Your task to perform on an android device: Go to calendar. Show me events next week Image 0: 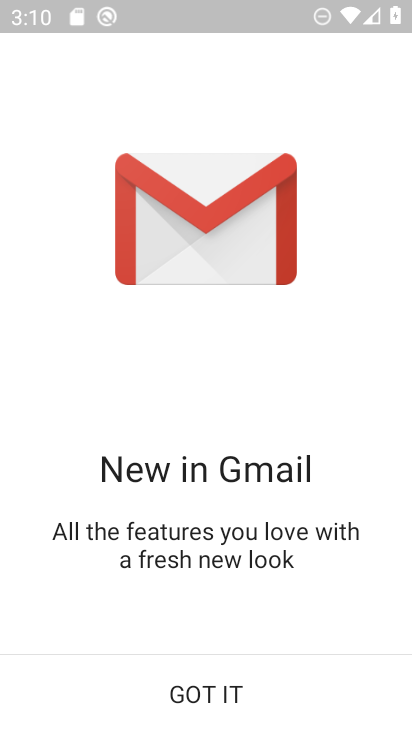
Step 0: press home button
Your task to perform on an android device: Go to calendar. Show me events next week Image 1: 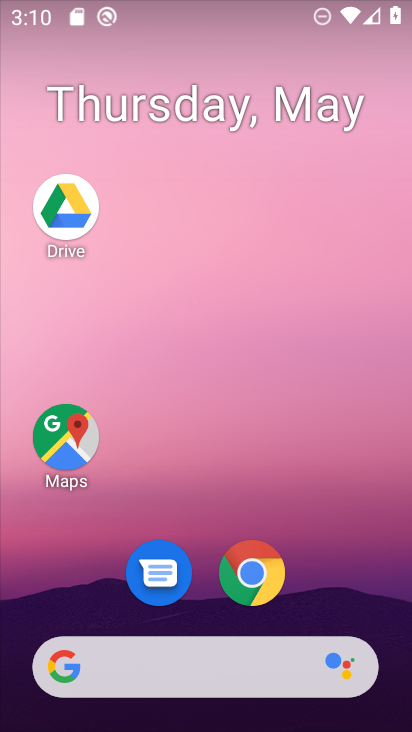
Step 1: drag from (342, 557) to (242, 133)
Your task to perform on an android device: Go to calendar. Show me events next week Image 2: 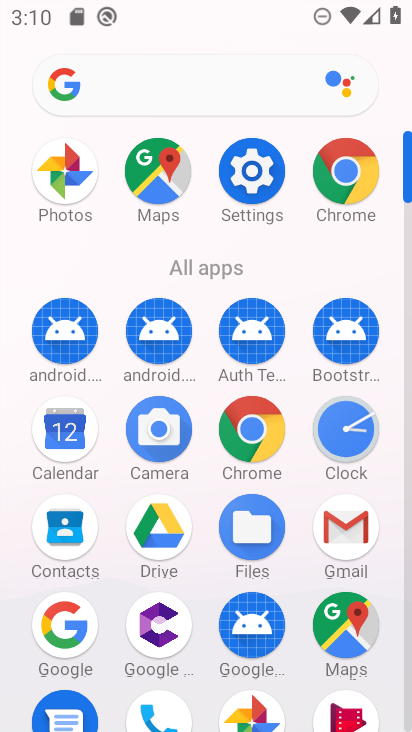
Step 2: click (41, 452)
Your task to perform on an android device: Go to calendar. Show me events next week Image 3: 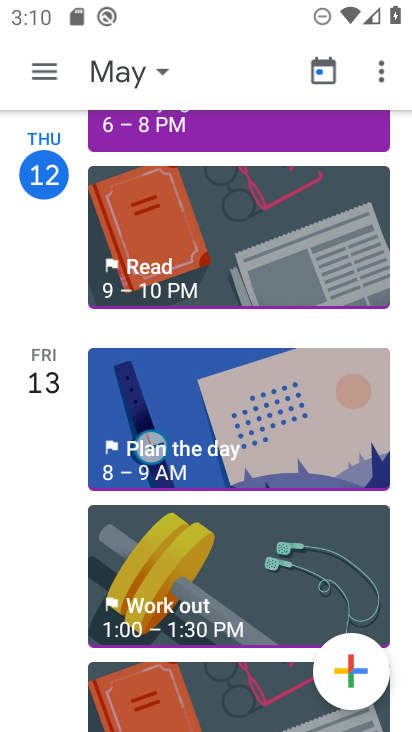
Step 3: click (165, 81)
Your task to perform on an android device: Go to calendar. Show me events next week Image 4: 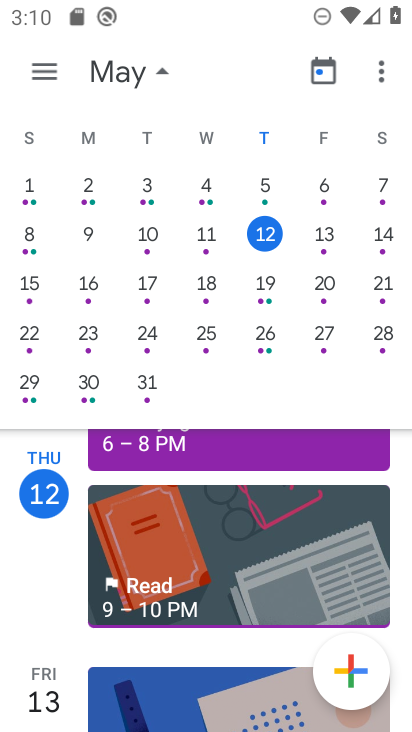
Step 4: click (155, 278)
Your task to perform on an android device: Go to calendar. Show me events next week Image 5: 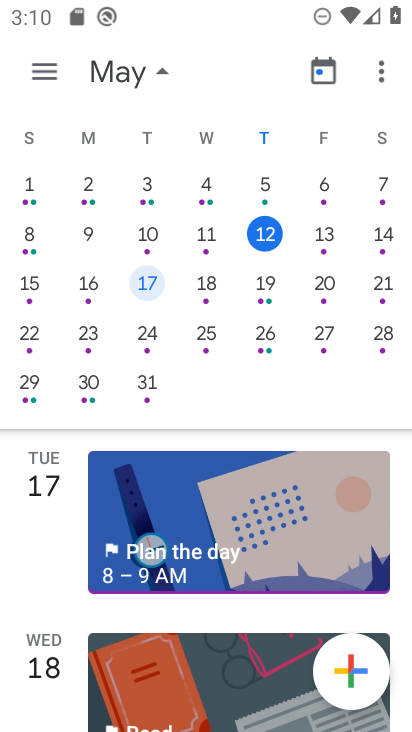
Step 5: click (40, 69)
Your task to perform on an android device: Go to calendar. Show me events next week Image 6: 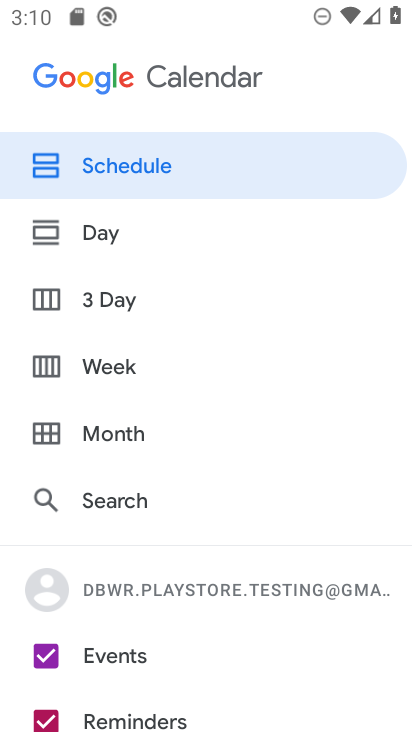
Step 6: click (116, 361)
Your task to perform on an android device: Go to calendar. Show me events next week Image 7: 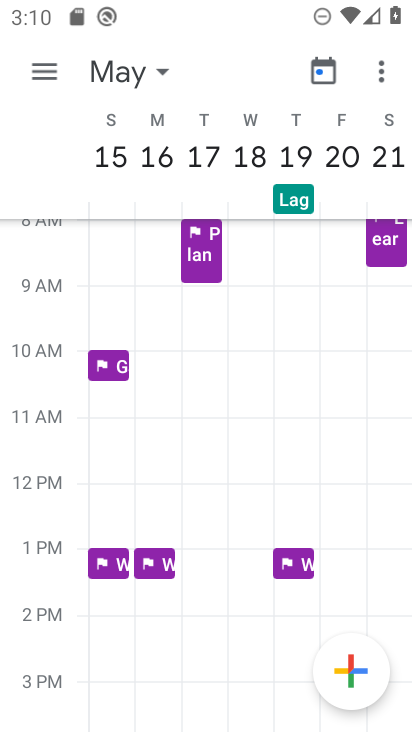
Step 7: task complete